Your task to perform on an android device: Search for vegetarian restaurants on Maps Image 0: 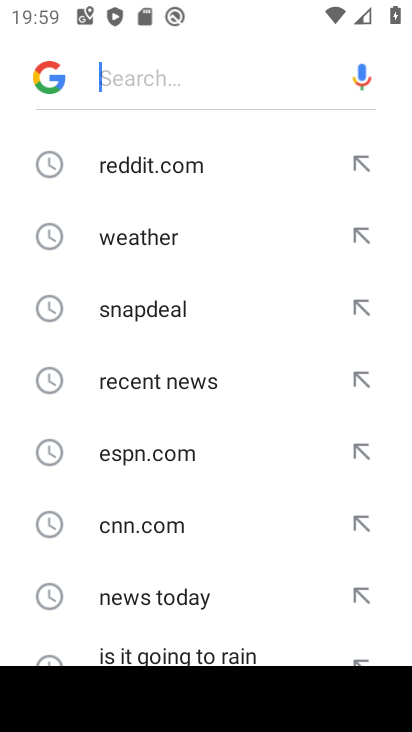
Step 0: press home button
Your task to perform on an android device: Search for vegetarian restaurants on Maps Image 1: 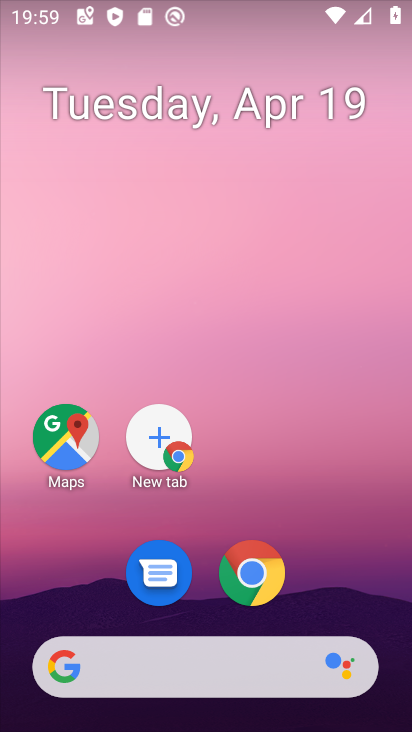
Step 1: click (68, 429)
Your task to perform on an android device: Search for vegetarian restaurants on Maps Image 2: 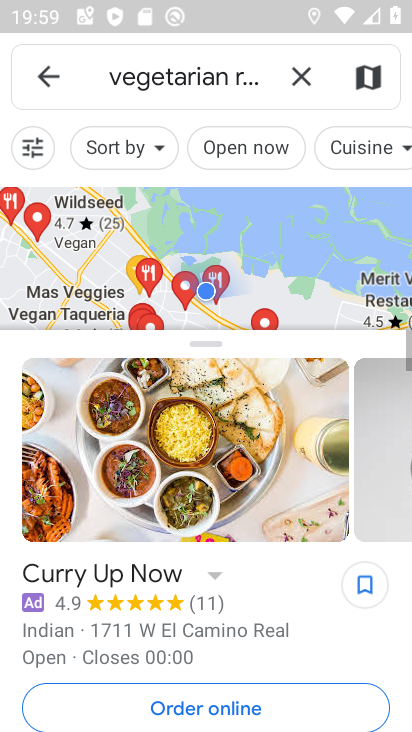
Step 2: task complete